Your task to perform on an android device: search for starred emails in the gmail app Image 0: 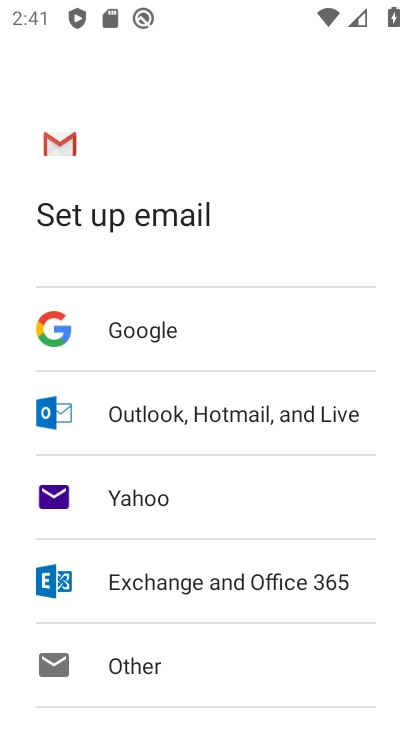
Step 0: press home button
Your task to perform on an android device: search for starred emails in the gmail app Image 1: 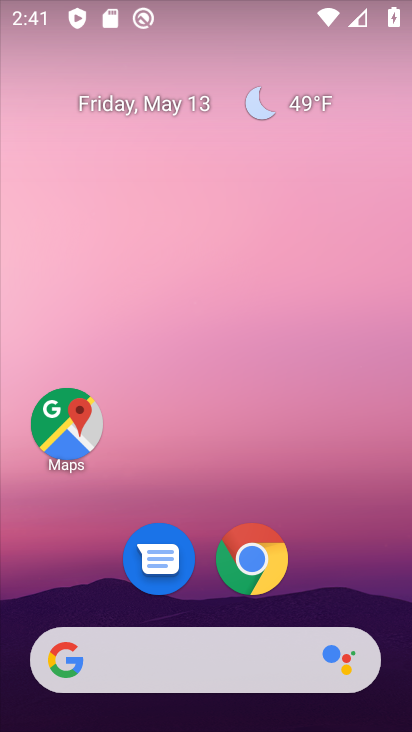
Step 1: drag from (395, 623) to (329, 67)
Your task to perform on an android device: search for starred emails in the gmail app Image 2: 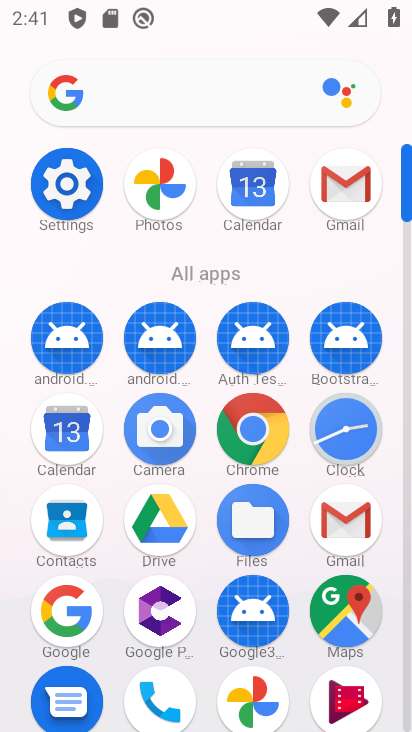
Step 2: click (404, 695)
Your task to perform on an android device: search for starred emails in the gmail app Image 3: 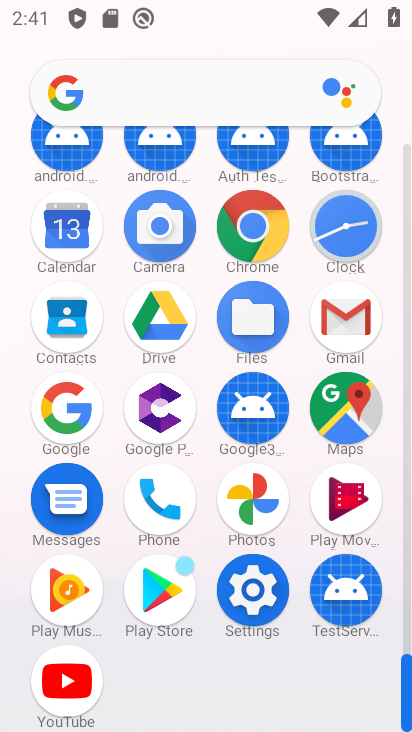
Step 3: click (348, 310)
Your task to perform on an android device: search for starred emails in the gmail app Image 4: 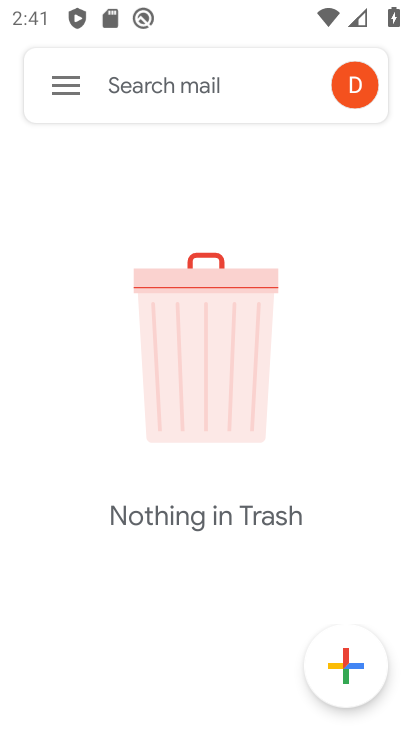
Step 4: click (58, 85)
Your task to perform on an android device: search for starred emails in the gmail app Image 5: 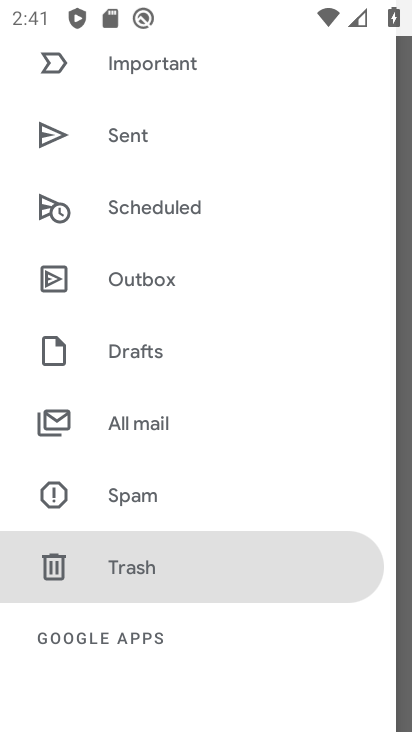
Step 5: drag from (251, 103) to (257, 518)
Your task to perform on an android device: search for starred emails in the gmail app Image 6: 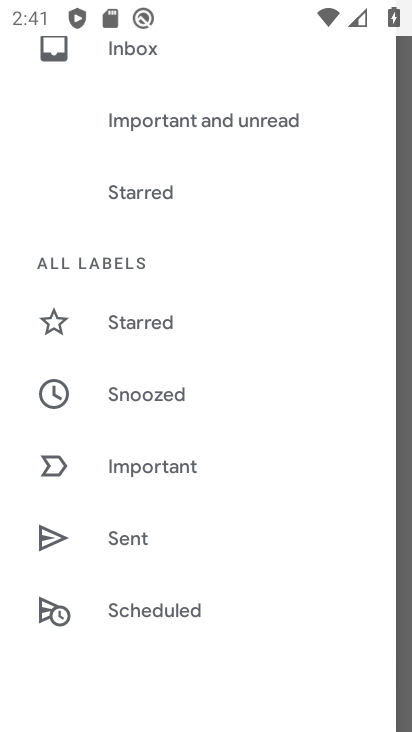
Step 6: click (133, 330)
Your task to perform on an android device: search for starred emails in the gmail app Image 7: 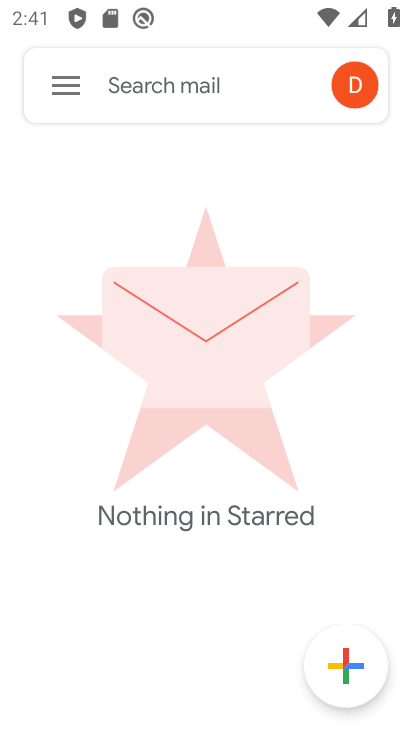
Step 7: task complete